Your task to perform on an android device: Do I have any events tomorrow? Image 0: 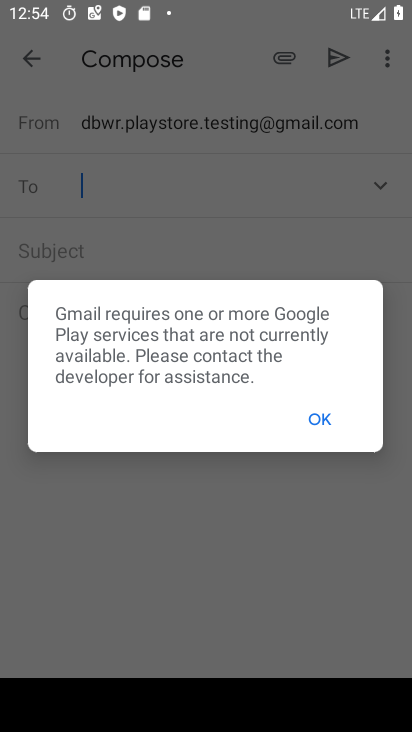
Step 0: press home button
Your task to perform on an android device: Do I have any events tomorrow? Image 1: 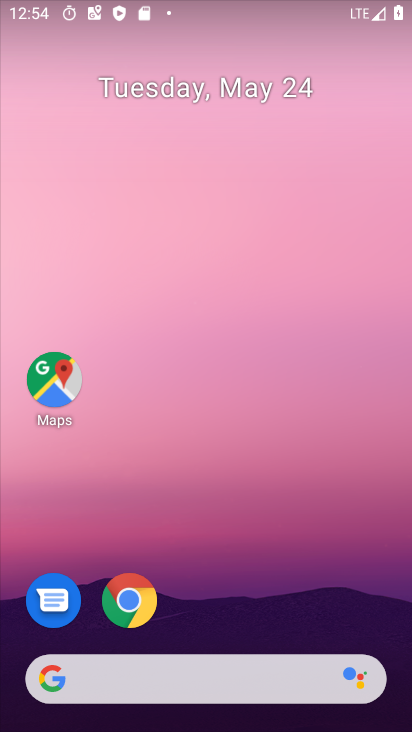
Step 1: drag from (285, 548) to (255, 8)
Your task to perform on an android device: Do I have any events tomorrow? Image 2: 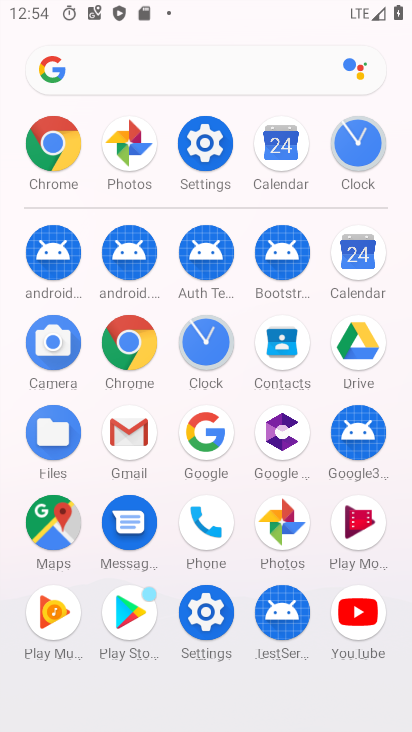
Step 2: click (363, 254)
Your task to perform on an android device: Do I have any events tomorrow? Image 3: 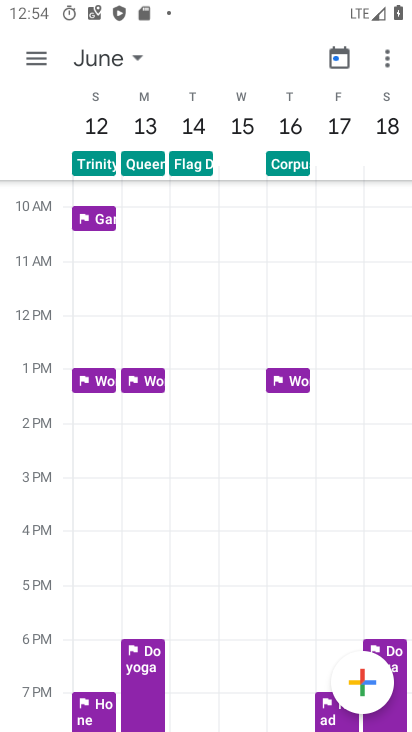
Step 3: click (101, 49)
Your task to perform on an android device: Do I have any events tomorrow? Image 4: 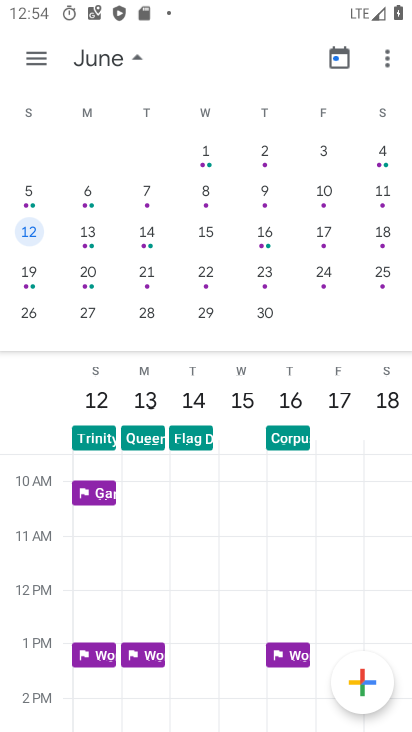
Step 4: click (101, 57)
Your task to perform on an android device: Do I have any events tomorrow? Image 5: 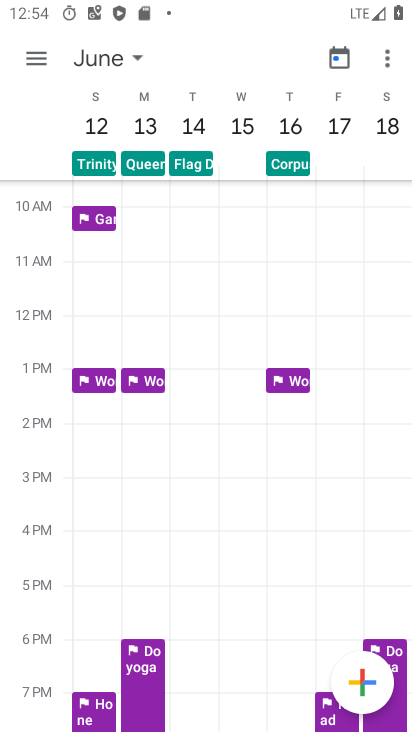
Step 5: click (101, 57)
Your task to perform on an android device: Do I have any events tomorrow? Image 6: 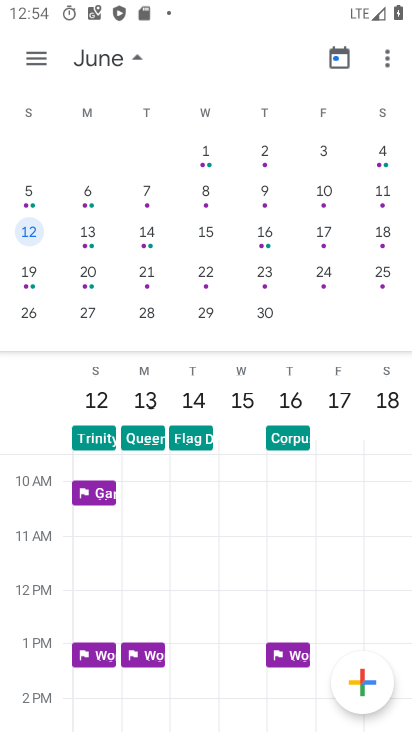
Step 6: drag from (40, 227) to (376, 247)
Your task to perform on an android device: Do I have any events tomorrow? Image 7: 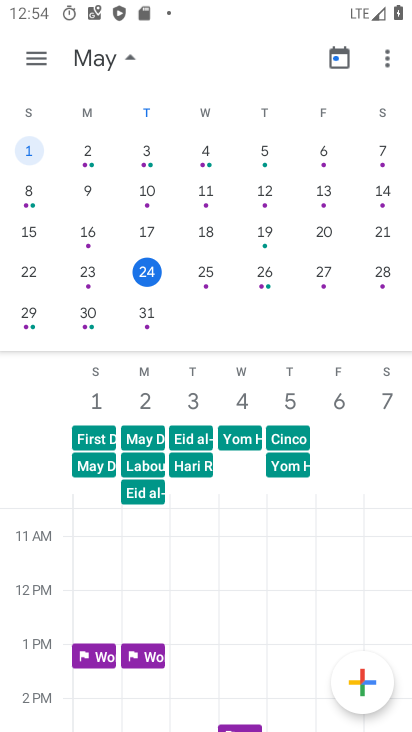
Step 7: click (209, 273)
Your task to perform on an android device: Do I have any events tomorrow? Image 8: 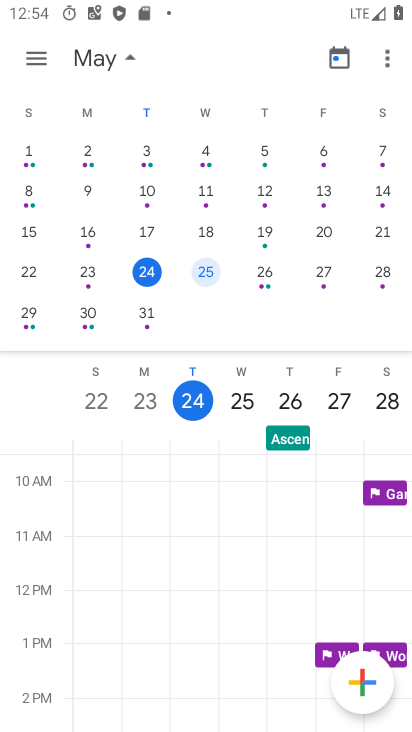
Step 8: task complete